Your task to perform on an android device: change the clock display to analog Image 0: 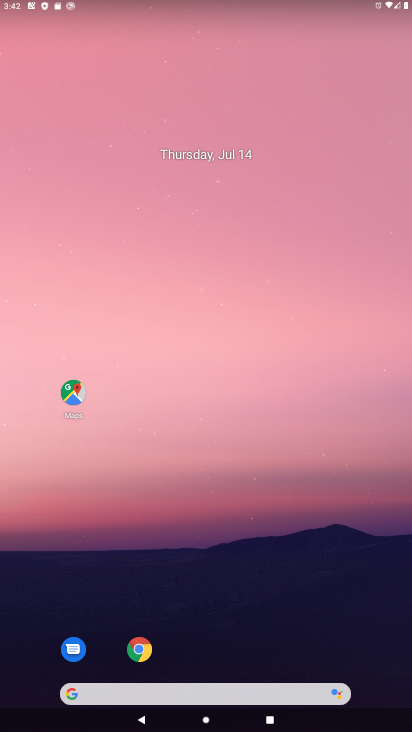
Step 0: drag from (179, 535) to (128, 1)
Your task to perform on an android device: change the clock display to analog Image 1: 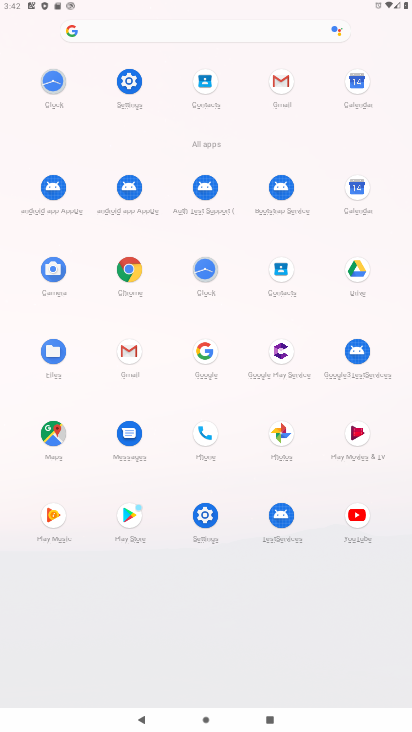
Step 1: click (199, 270)
Your task to perform on an android device: change the clock display to analog Image 2: 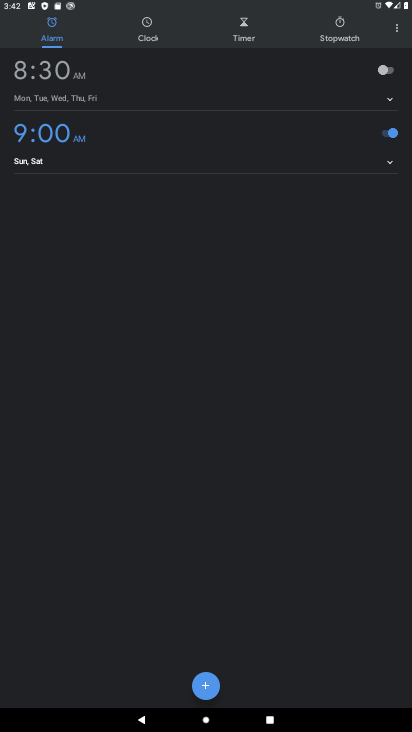
Step 2: click (399, 29)
Your task to perform on an android device: change the clock display to analog Image 3: 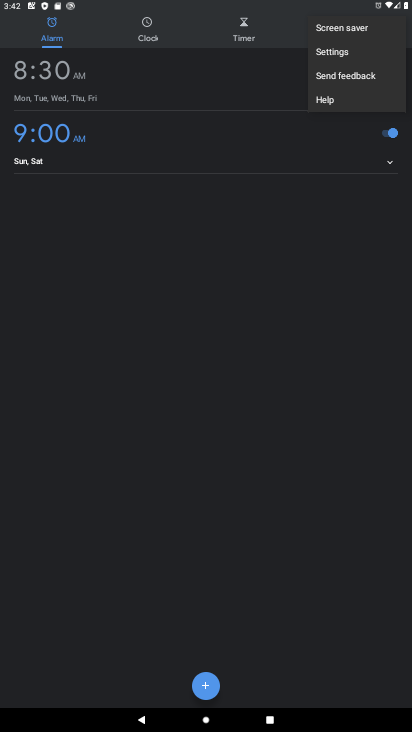
Step 3: click (332, 51)
Your task to perform on an android device: change the clock display to analog Image 4: 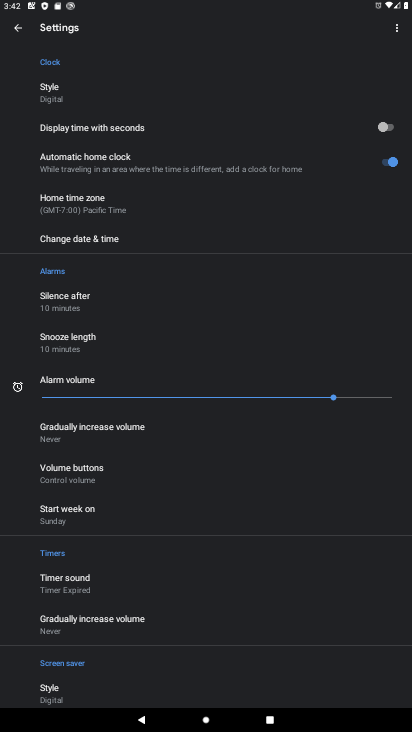
Step 4: click (70, 95)
Your task to perform on an android device: change the clock display to analog Image 5: 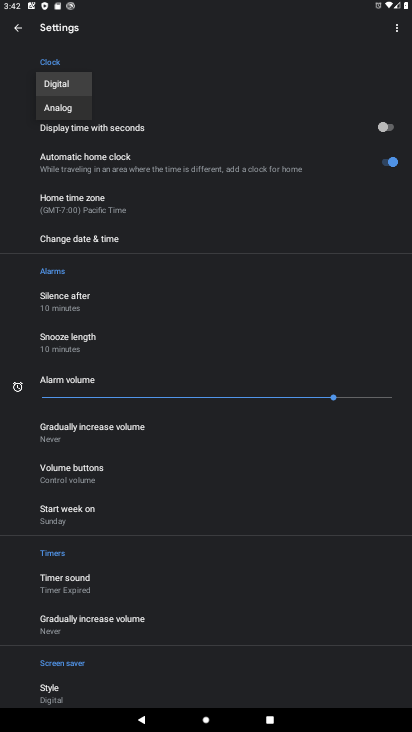
Step 5: click (66, 110)
Your task to perform on an android device: change the clock display to analog Image 6: 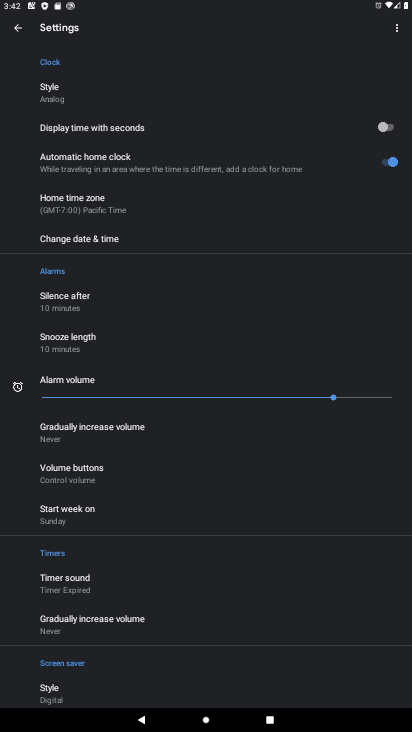
Step 6: task complete